Your task to perform on an android device: Open accessibility settings Image 0: 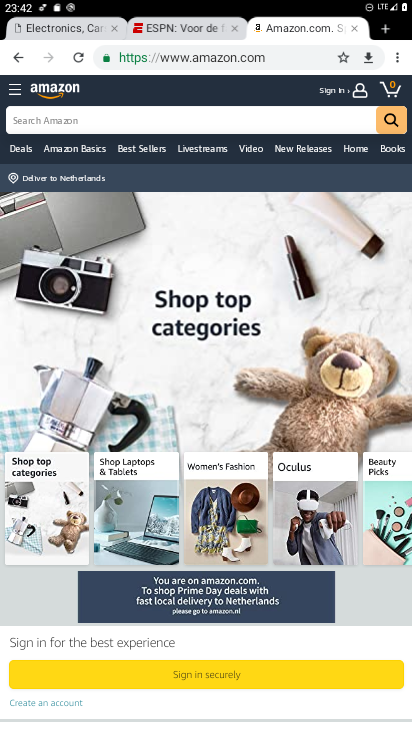
Step 0: press home button
Your task to perform on an android device: Open accessibility settings Image 1: 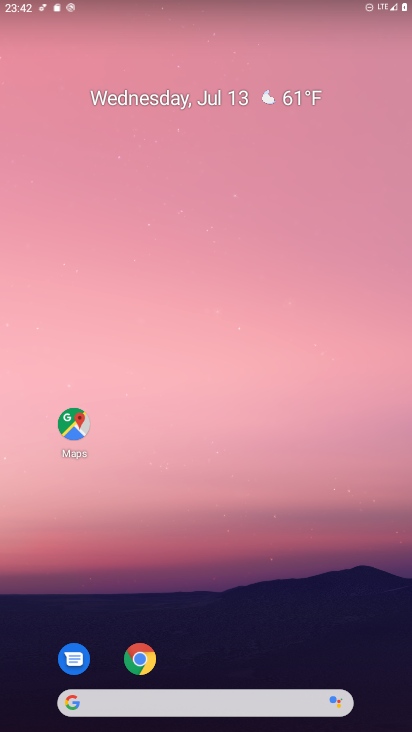
Step 1: drag from (381, 662) to (319, 182)
Your task to perform on an android device: Open accessibility settings Image 2: 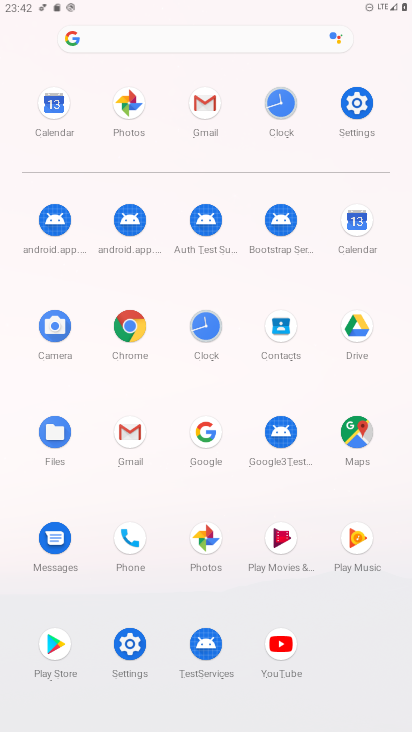
Step 2: click (129, 642)
Your task to perform on an android device: Open accessibility settings Image 3: 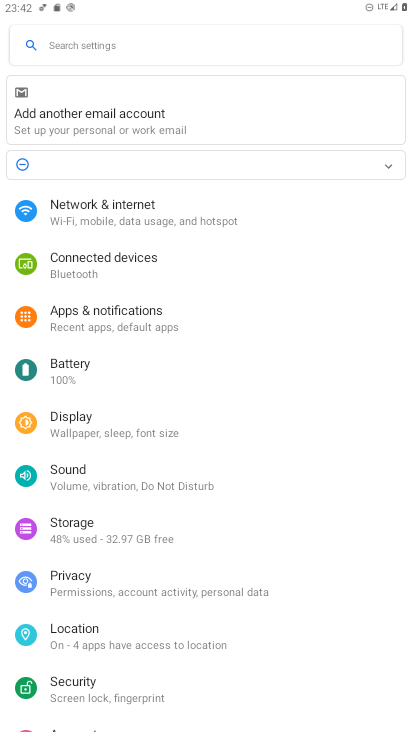
Step 3: drag from (261, 649) to (235, 237)
Your task to perform on an android device: Open accessibility settings Image 4: 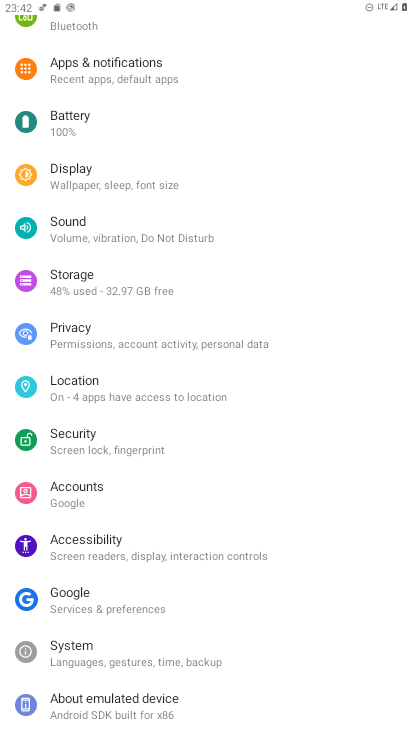
Step 4: click (97, 538)
Your task to perform on an android device: Open accessibility settings Image 5: 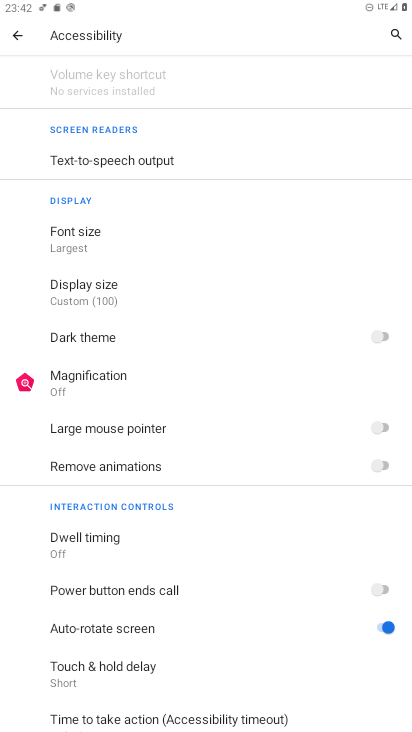
Step 5: task complete